Your task to perform on an android device: Open the stopwatch Image 0: 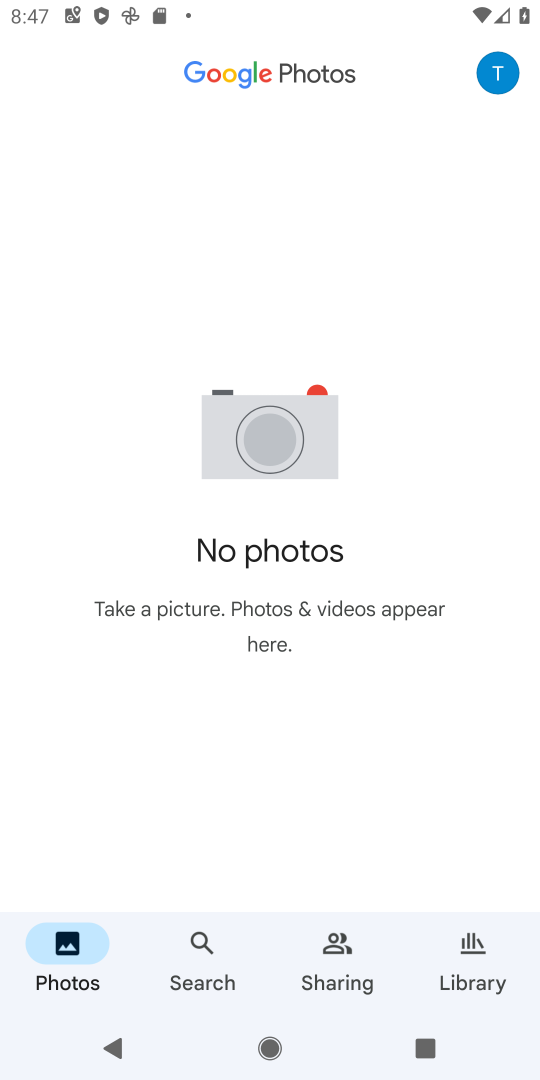
Step 0: press home button
Your task to perform on an android device: Open the stopwatch Image 1: 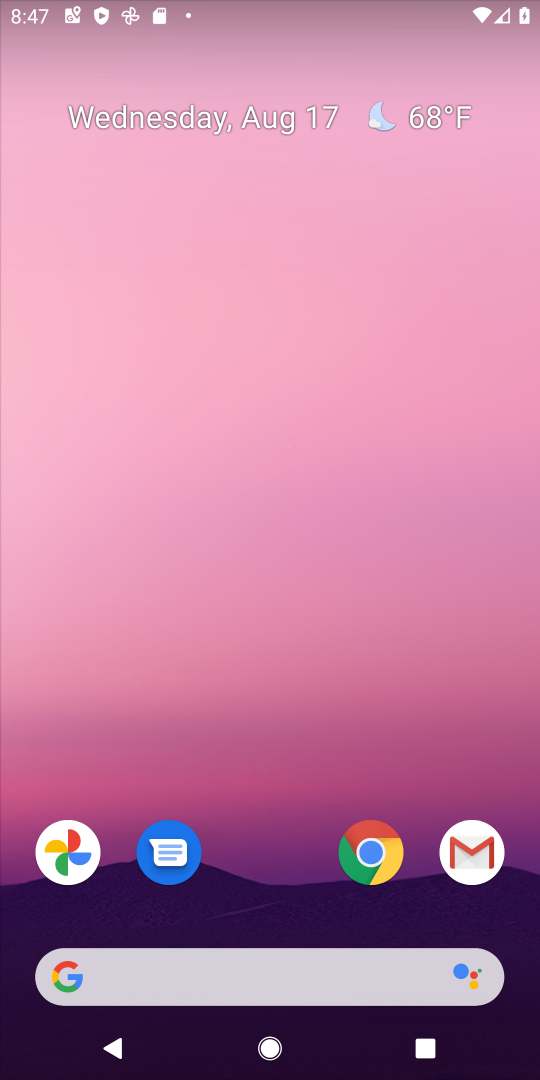
Step 1: drag from (282, 904) to (200, 202)
Your task to perform on an android device: Open the stopwatch Image 2: 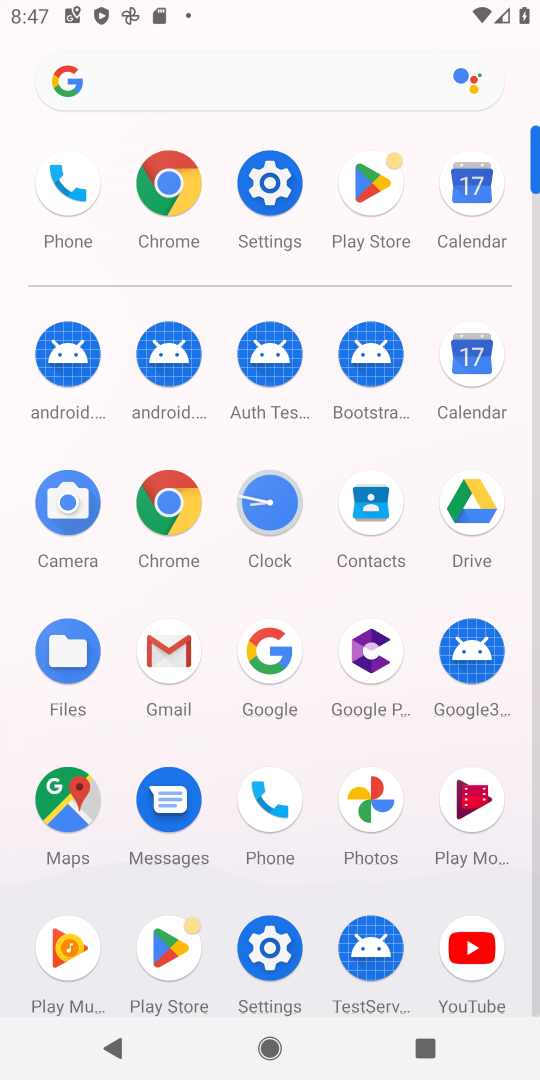
Step 2: click (266, 503)
Your task to perform on an android device: Open the stopwatch Image 3: 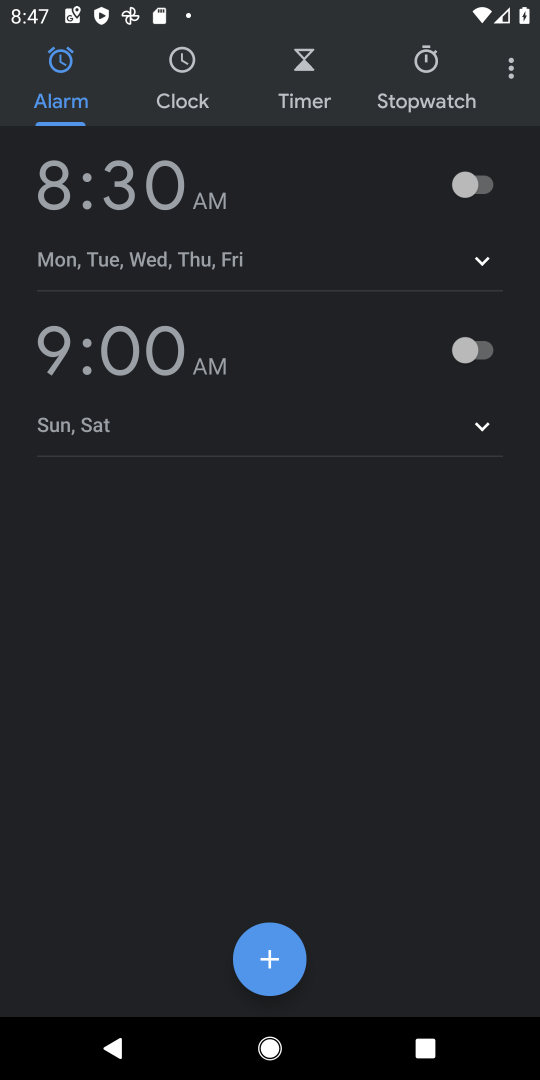
Step 3: click (411, 59)
Your task to perform on an android device: Open the stopwatch Image 4: 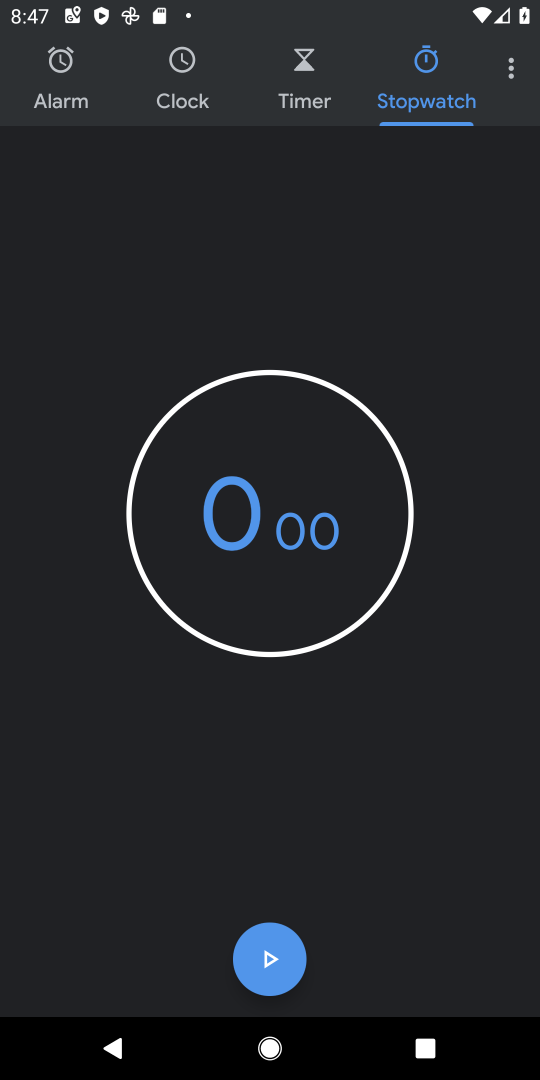
Step 4: task complete